Your task to perform on an android device: toggle location history Image 0: 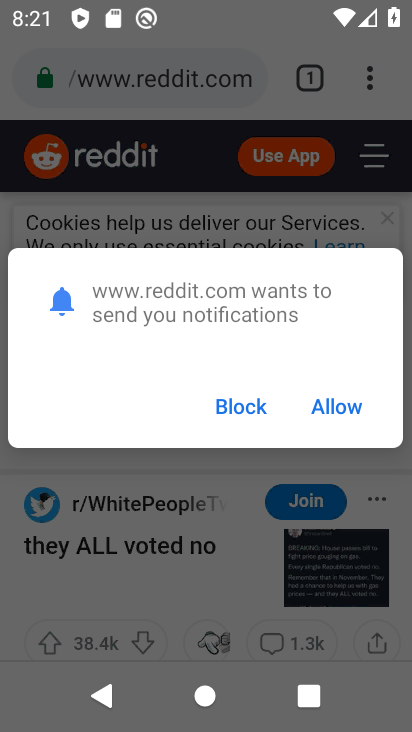
Step 0: press home button
Your task to perform on an android device: toggle location history Image 1: 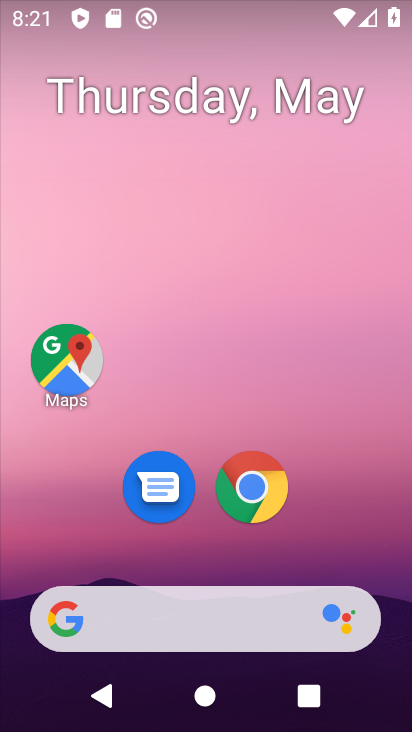
Step 1: drag from (349, 550) to (296, 4)
Your task to perform on an android device: toggle location history Image 2: 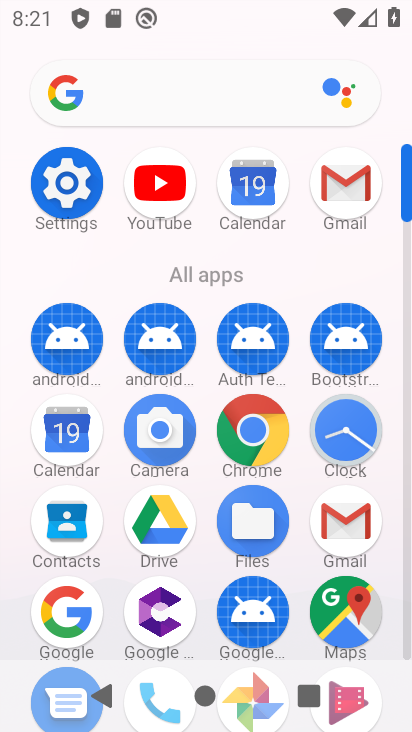
Step 2: click (64, 190)
Your task to perform on an android device: toggle location history Image 3: 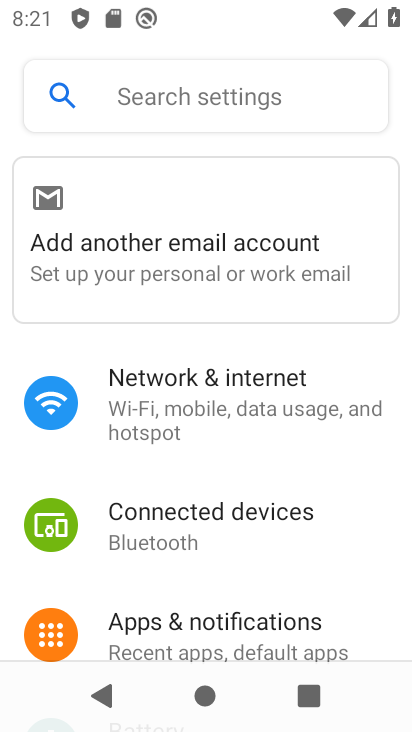
Step 3: drag from (285, 644) to (247, 113)
Your task to perform on an android device: toggle location history Image 4: 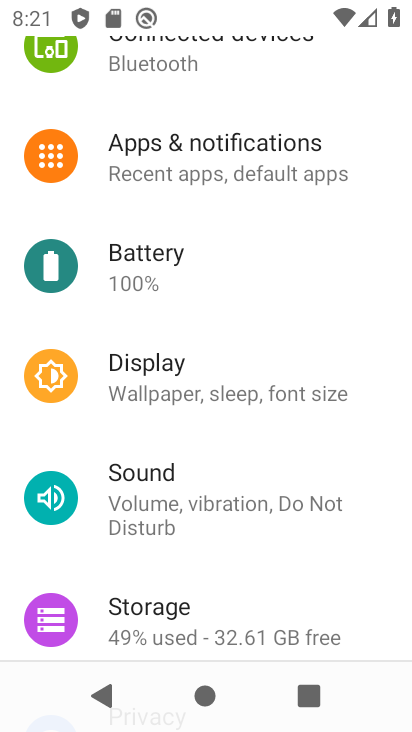
Step 4: drag from (223, 621) to (190, 150)
Your task to perform on an android device: toggle location history Image 5: 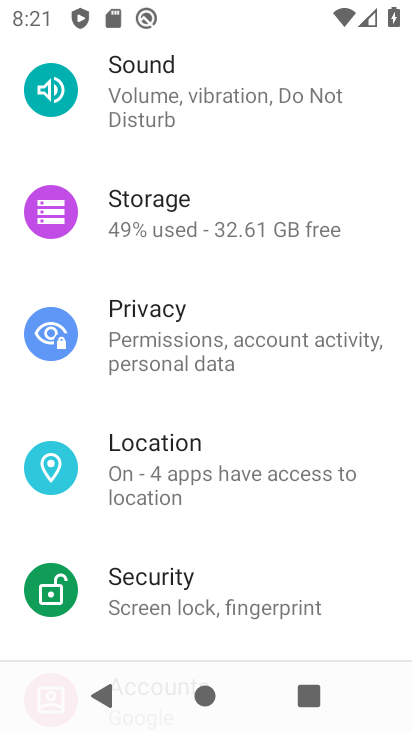
Step 5: click (141, 471)
Your task to perform on an android device: toggle location history Image 6: 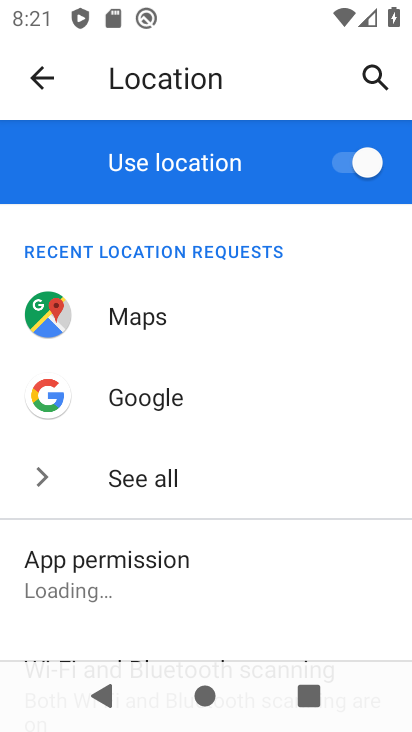
Step 6: drag from (246, 608) to (198, 149)
Your task to perform on an android device: toggle location history Image 7: 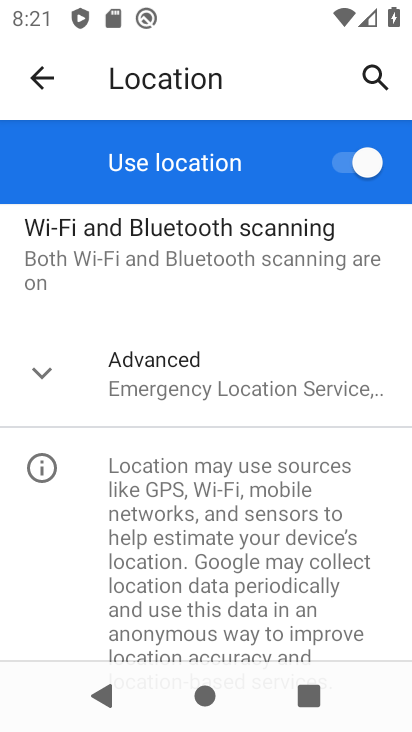
Step 7: click (203, 374)
Your task to perform on an android device: toggle location history Image 8: 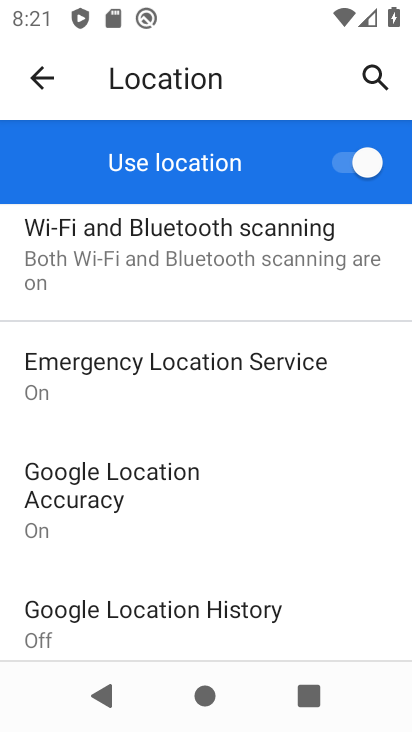
Step 8: click (211, 623)
Your task to perform on an android device: toggle location history Image 9: 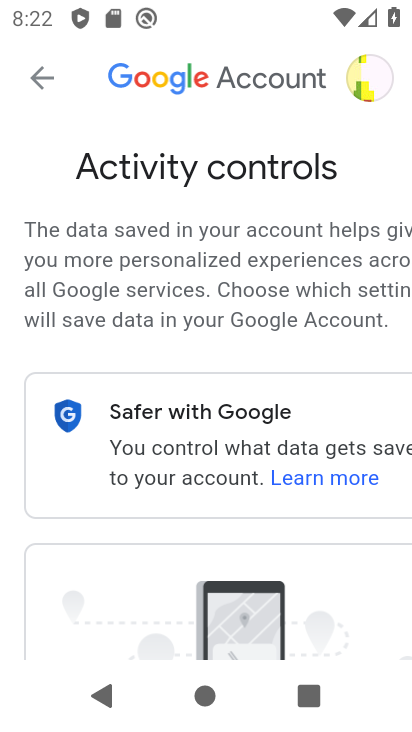
Step 9: drag from (281, 583) to (218, 22)
Your task to perform on an android device: toggle location history Image 10: 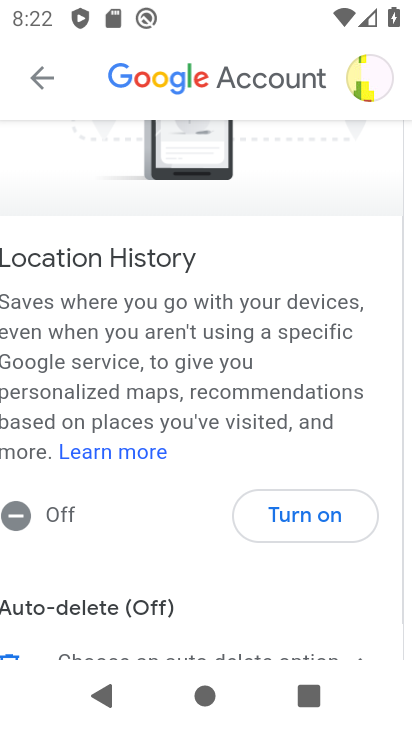
Step 10: click (293, 511)
Your task to perform on an android device: toggle location history Image 11: 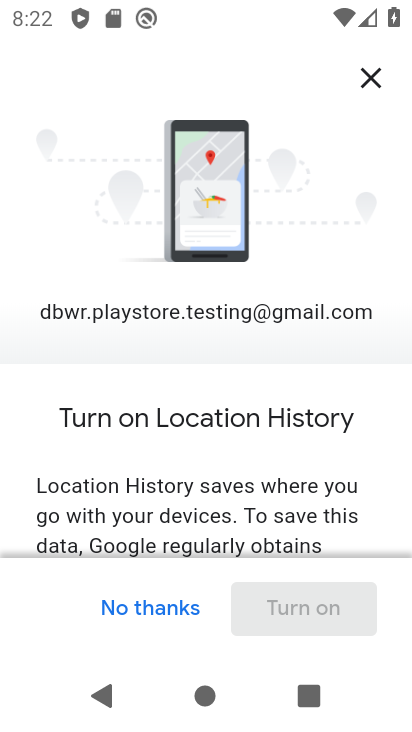
Step 11: drag from (219, 494) to (246, 0)
Your task to perform on an android device: toggle location history Image 12: 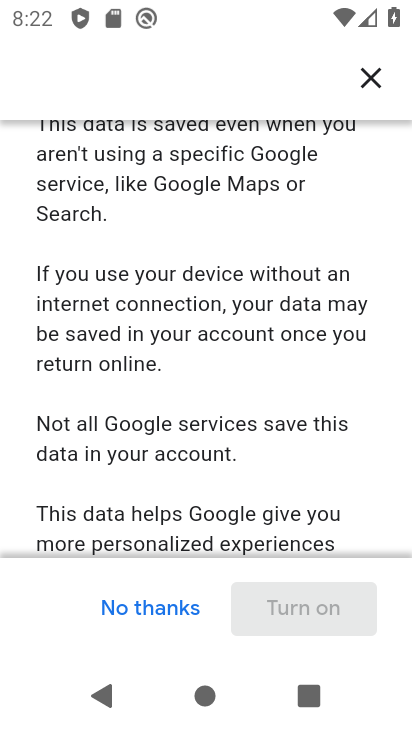
Step 12: drag from (304, 511) to (331, 1)
Your task to perform on an android device: toggle location history Image 13: 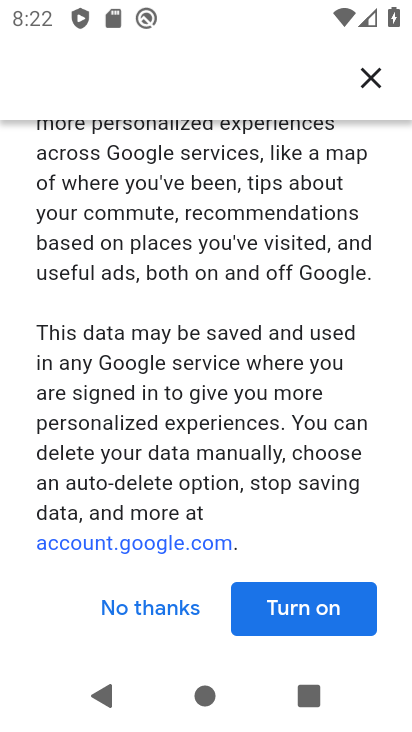
Step 13: click (313, 625)
Your task to perform on an android device: toggle location history Image 14: 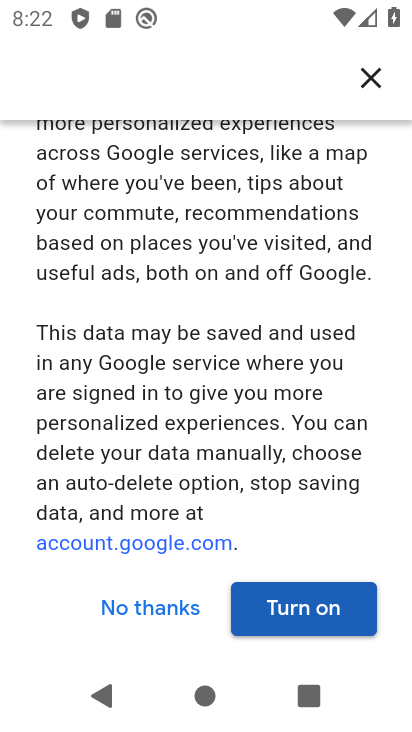
Step 14: click (312, 613)
Your task to perform on an android device: toggle location history Image 15: 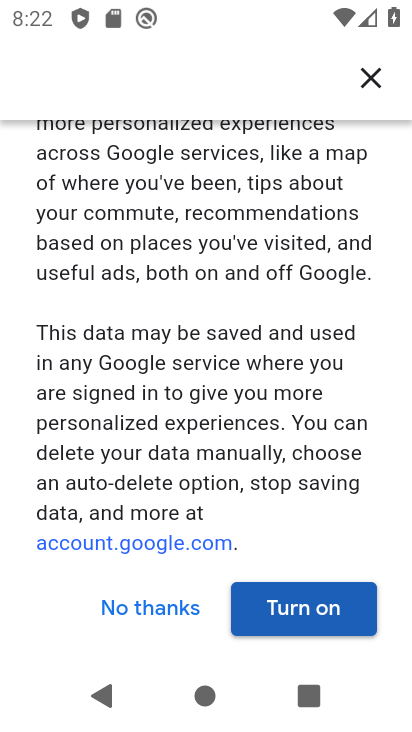
Step 15: click (317, 610)
Your task to perform on an android device: toggle location history Image 16: 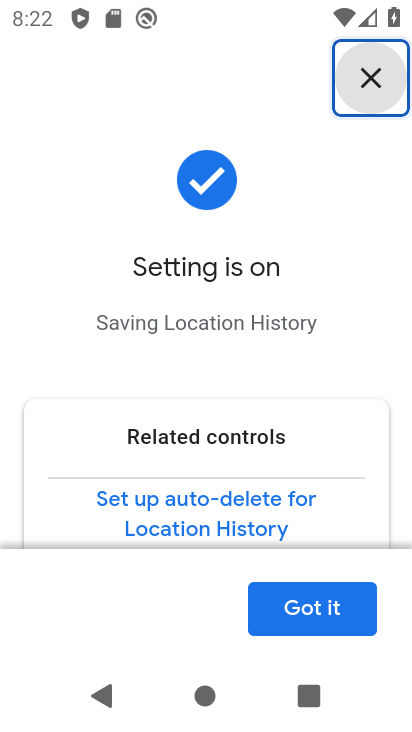
Step 16: click (322, 610)
Your task to perform on an android device: toggle location history Image 17: 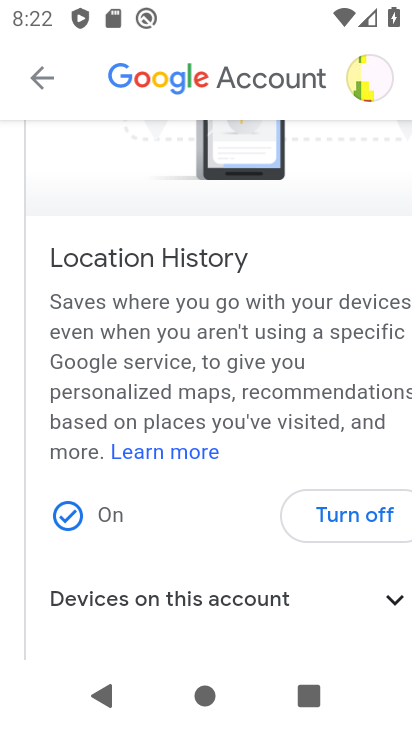
Step 17: task complete